Your task to perform on an android device: toggle show notifications on the lock screen Image 0: 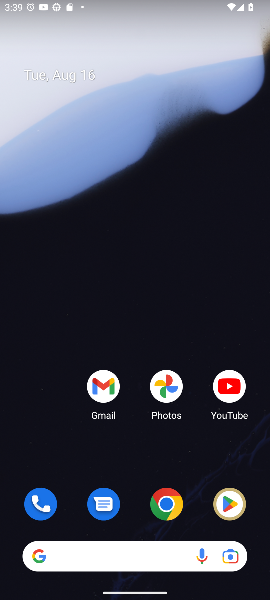
Step 0: drag from (138, 483) to (107, 166)
Your task to perform on an android device: toggle show notifications on the lock screen Image 1: 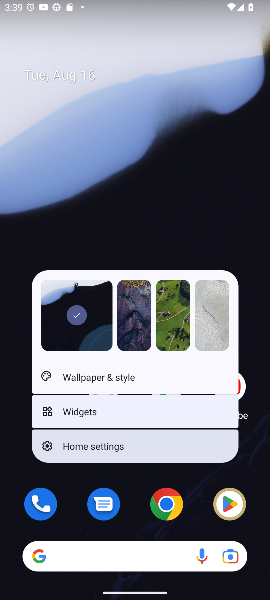
Step 1: click (107, 166)
Your task to perform on an android device: toggle show notifications on the lock screen Image 2: 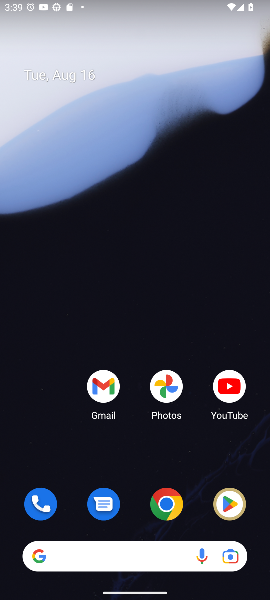
Step 2: drag from (135, 518) to (126, 107)
Your task to perform on an android device: toggle show notifications on the lock screen Image 3: 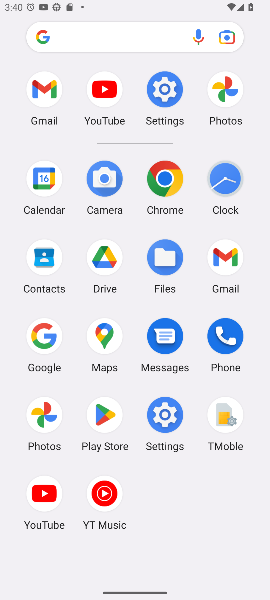
Step 3: click (164, 89)
Your task to perform on an android device: toggle show notifications on the lock screen Image 4: 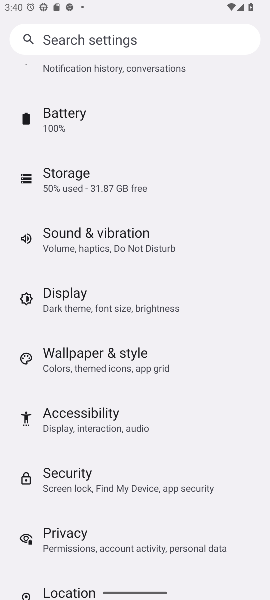
Step 4: drag from (143, 127) to (143, 379)
Your task to perform on an android device: toggle show notifications on the lock screen Image 5: 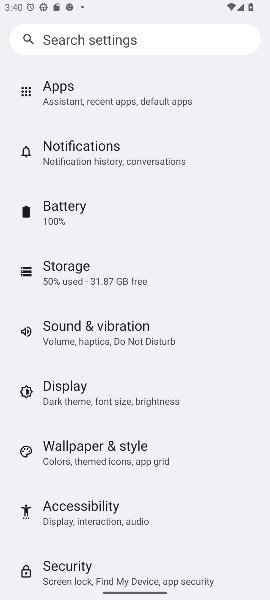
Step 5: click (79, 145)
Your task to perform on an android device: toggle show notifications on the lock screen Image 6: 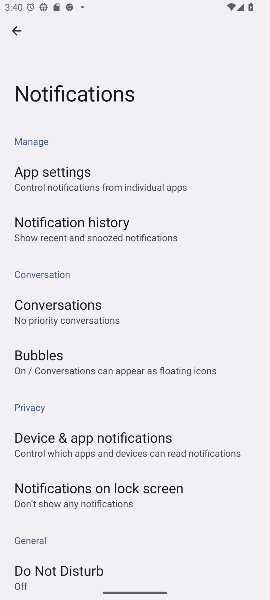
Step 6: click (120, 488)
Your task to perform on an android device: toggle show notifications on the lock screen Image 7: 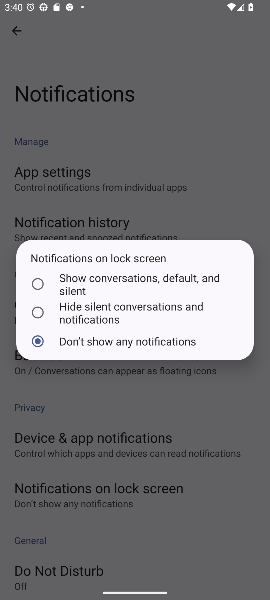
Step 7: click (35, 284)
Your task to perform on an android device: toggle show notifications on the lock screen Image 8: 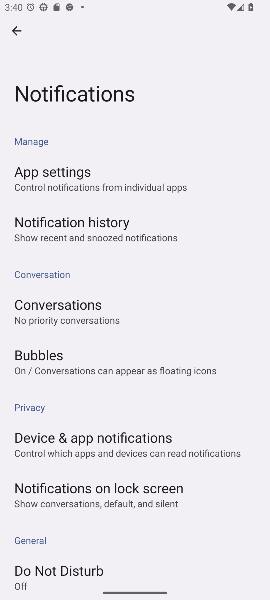
Step 8: task complete